Your task to perform on an android device: turn pop-ups off in chrome Image 0: 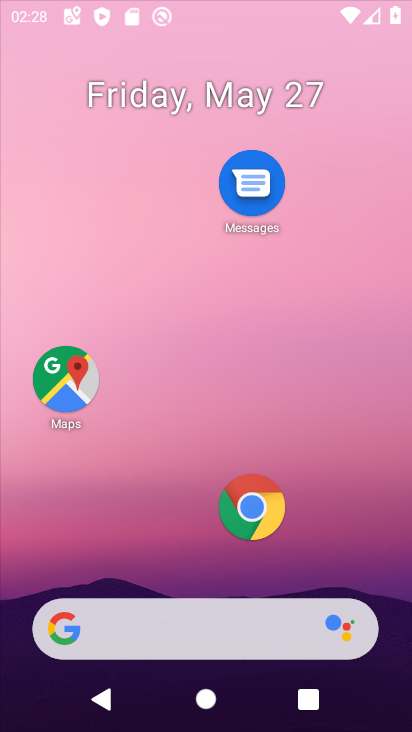
Step 0: click (327, 104)
Your task to perform on an android device: turn pop-ups off in chrome Image 1: 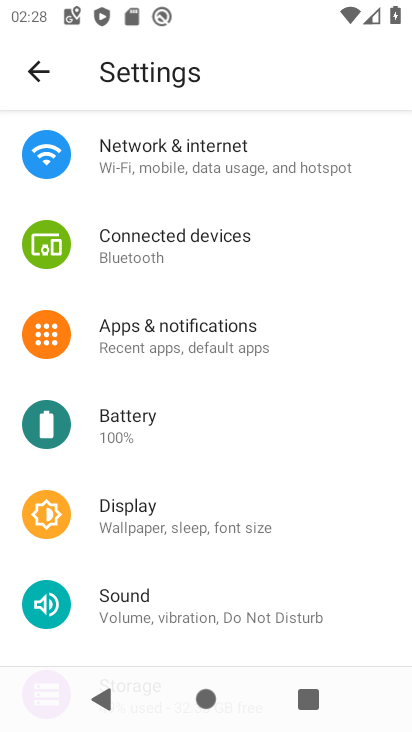
Step 1: press home button
Your task to perform on an android device: turn pop-ups off in chrome Image 2: 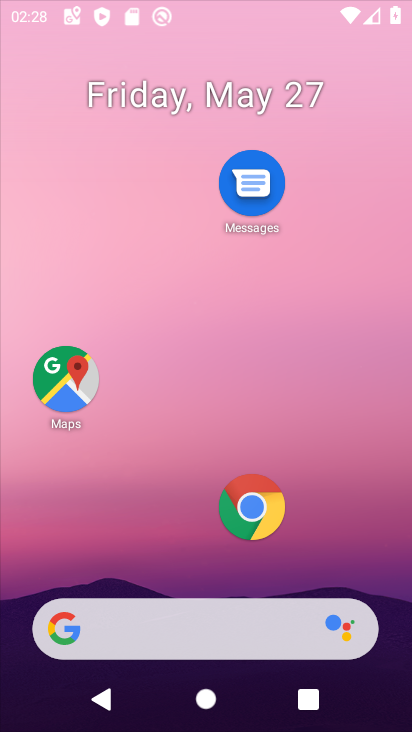
Step 2: drag from (254, 578) to (369, 118)
Your task to perform on an android device: turn pop-ups off in chrome Image 3: 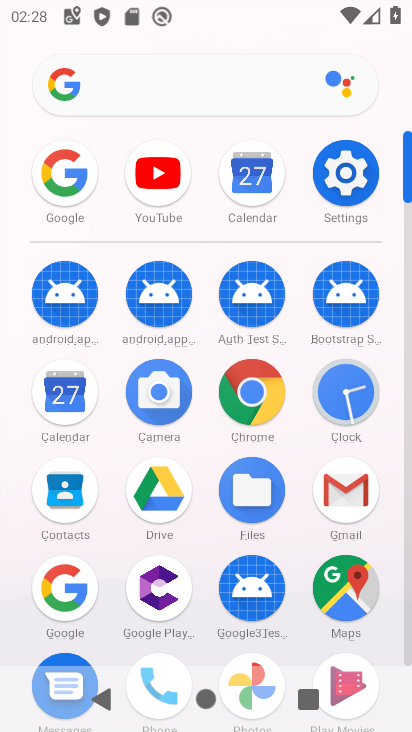
Step 3: click (256, 386)
Your task to perform on an android device: turn pop-ups off in chrome Image 4: 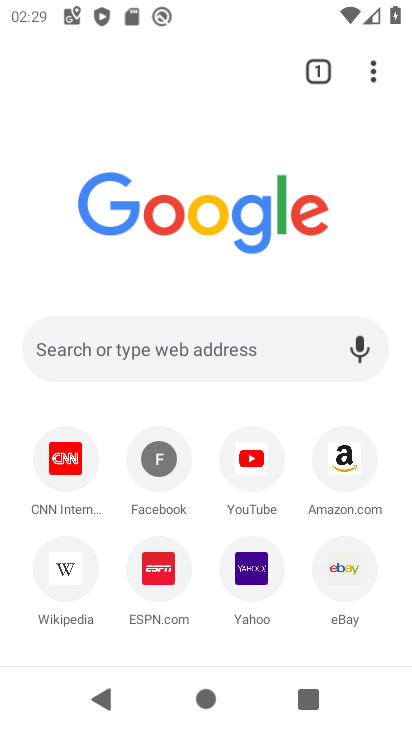
Step 4: drag from (369, 62) to (125, 499)
Your task to perform on an android device: turn pop-ups off in chrome Image 5: 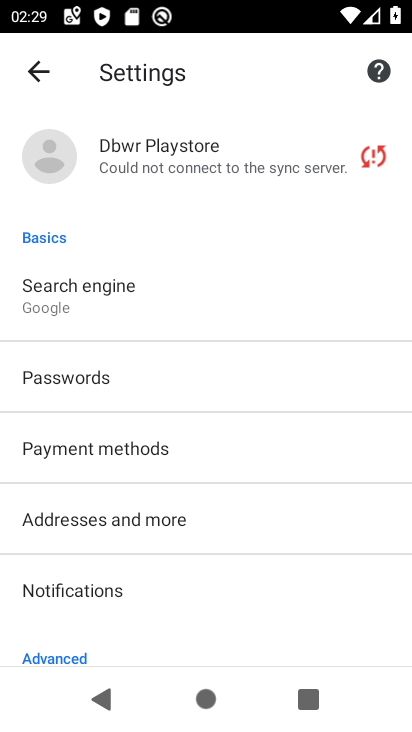
Step 5: drag from (209, 544) to (307, 51)
Your task to perform on an android device: turn pop-ups off in chrome Image 6: 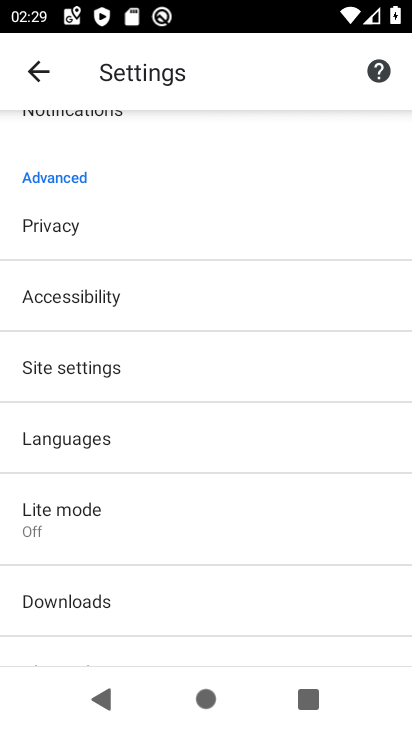
Step 6: click (85, 371)
Your task to perform on an android device: turn pop-ups off in chrome Image 7: 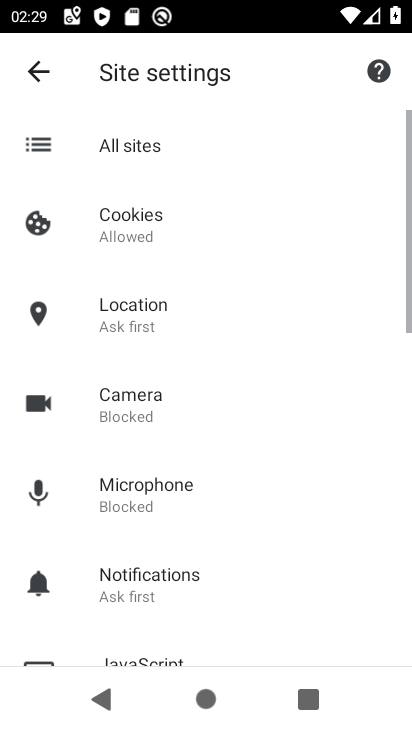
Step 7: drag from (131, 528) to (225, 243)
Your task to perform on an android device: turn pop-ups off in chrome Image 8: 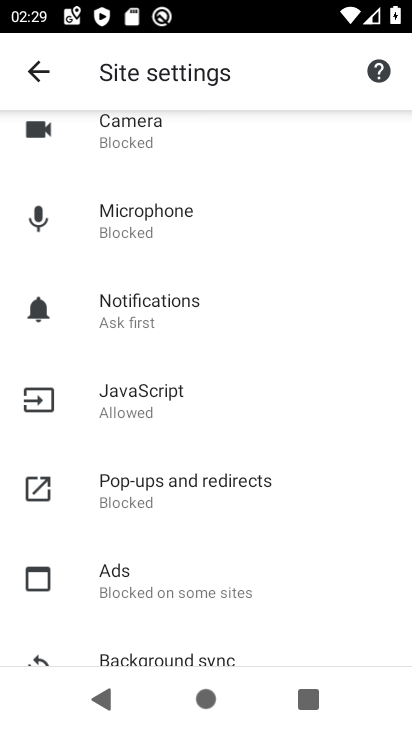
Step 8: click (164, 488)
Your task to perform on an android device: turn pop-ups off in chrome Image 9: 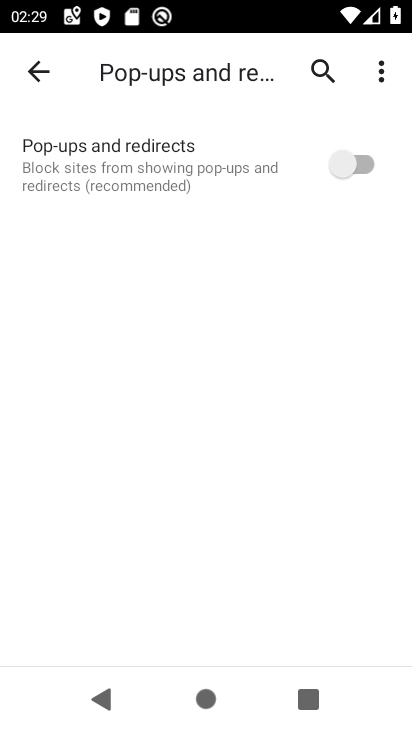
Step 9: task complete